Your task to perform on an android device: Open network settings Image 0: 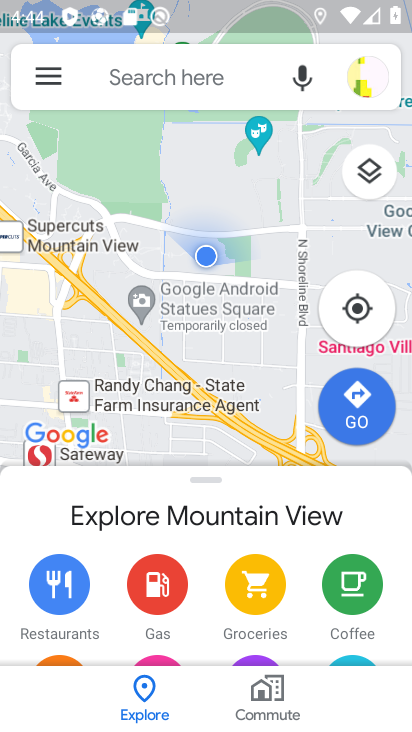
Step 0: press home button
Your task to perform on an android device: Open network settings Image 1: 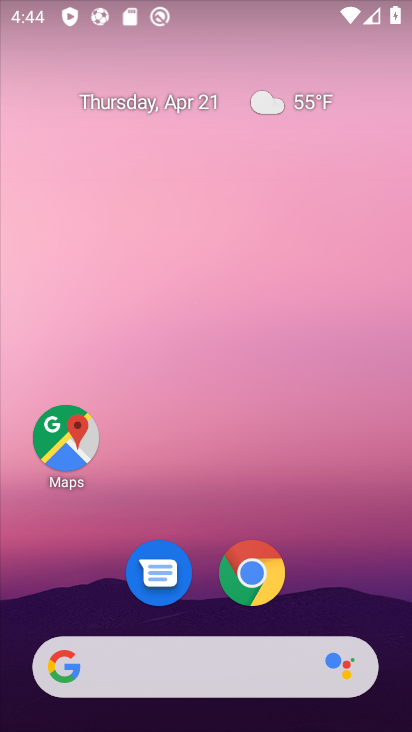
Step 1: drag from (339, 577) to (273, 64)
Your task to perform on an android device: Open network settings Image 2: 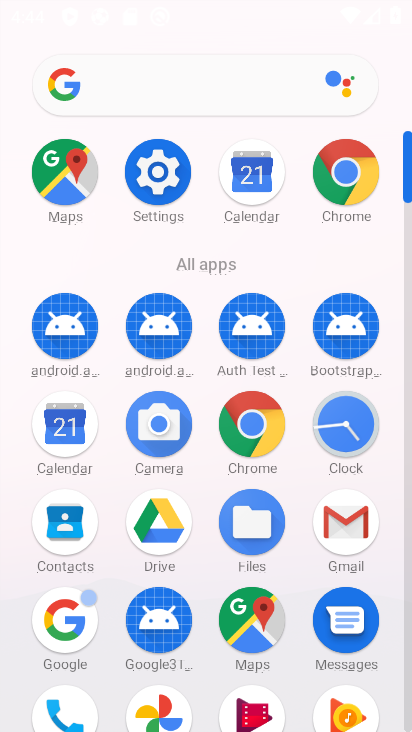
Step 2: click (159, 158)
Your task to perform on an android device: Open network settings Image 3: 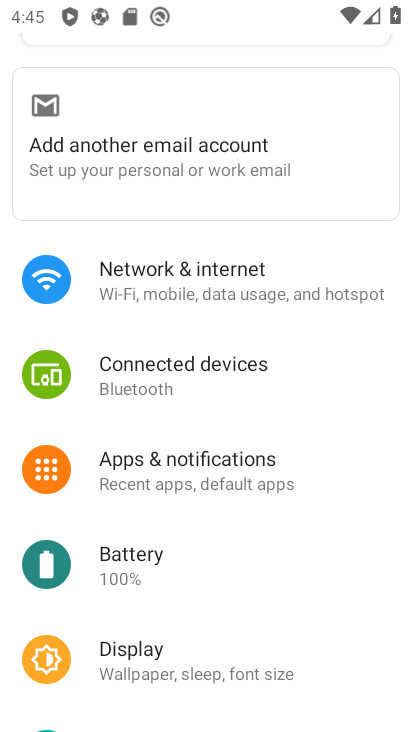
Step 3: click (234, 275)
Your task to perform on an android device: Open network settings Image 4: 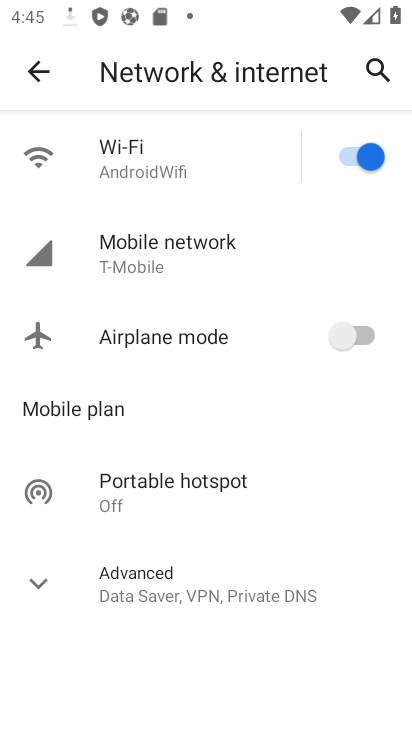
Step 4: task complete